Your task to perform on an android device: turn off location Image 0: 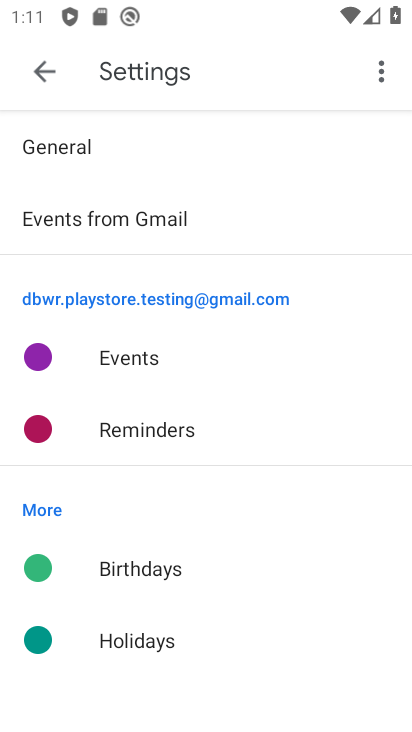
Step 0: press home button
Your task to perform on an android device: turn off location Image 1: 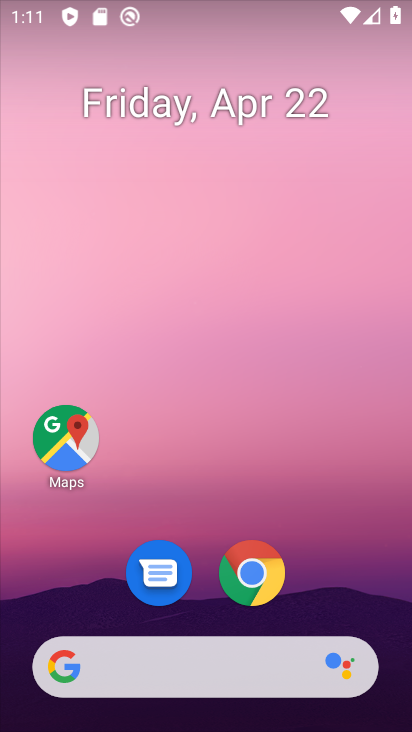
Step 1: drag from (241, 472) to (255, 31)
Your task to perform on an android device: turn off location Image 2: 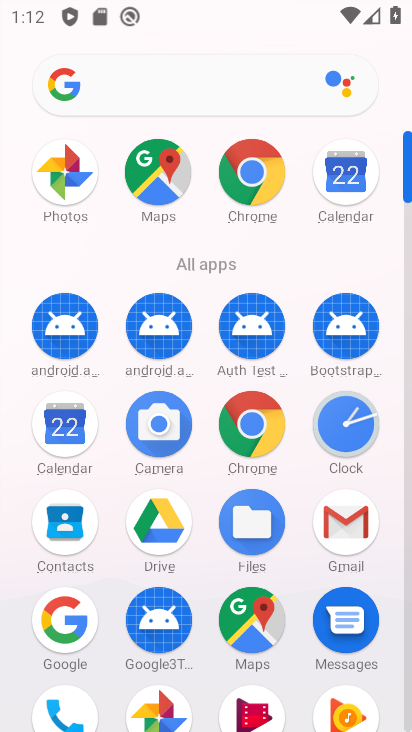
Step 2: drag from (244, 432) to (282, 163)
Your task to perform on an android device: turn off location Image 3: 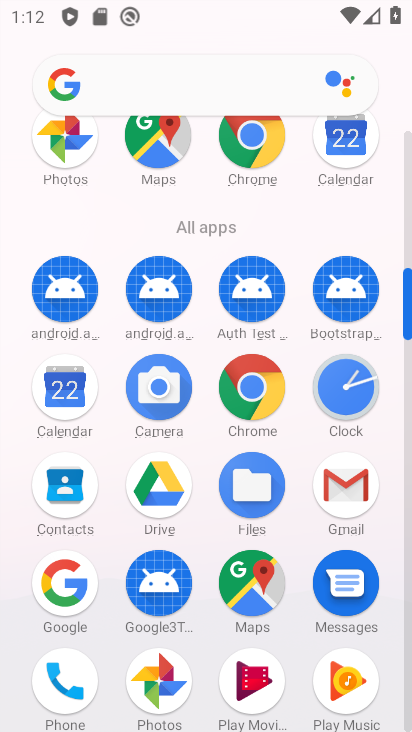
Step 3: drag from (206, 598) to (246, 122)
Your task to perform on an android device: turn off location Image 4: 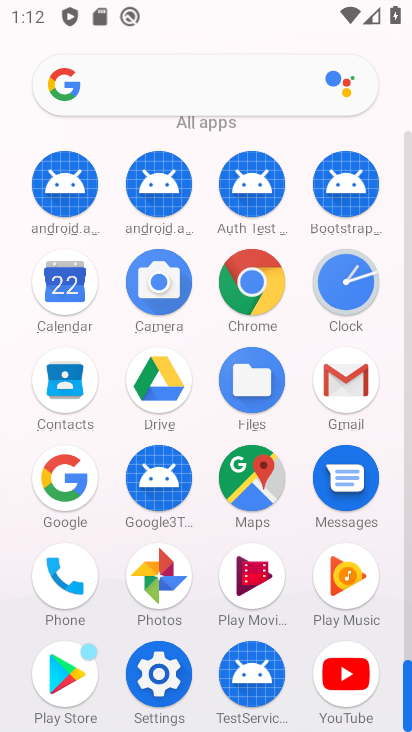
Step 4: drag from (160, 668) to (117, 226)
Your task to perform on an android device: turn off location Image 5: 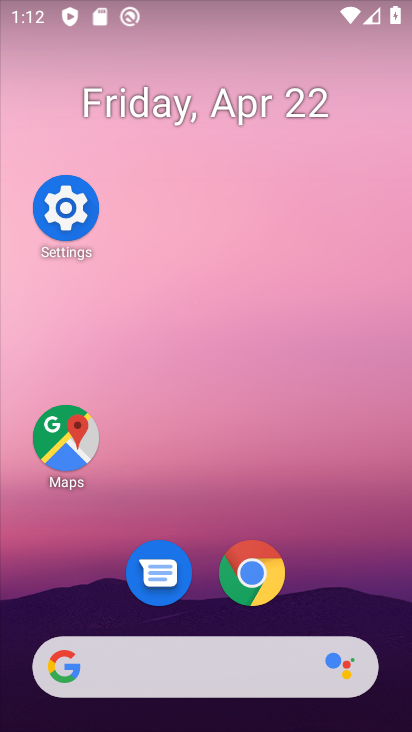
Step 5: click (67, 203)
Your task to perform on an android device: turn off location Image 6: 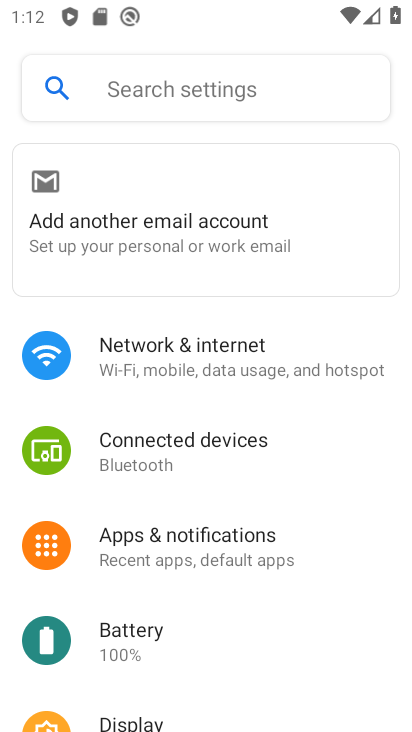
Step 6: drag from (235, 634) to (282, 39)
Your task to perform on an android device: turn off location Image 7: 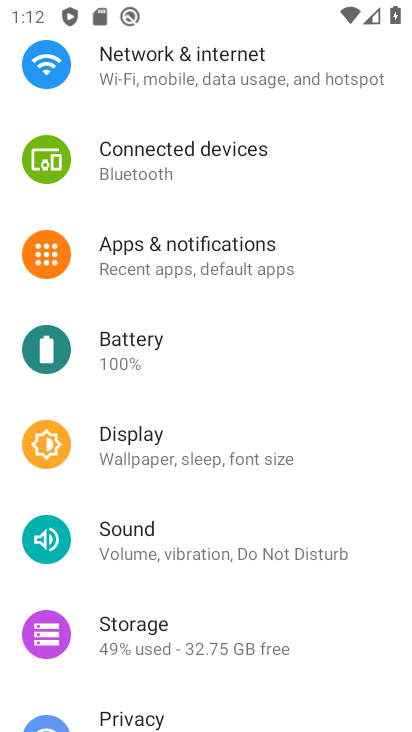
Step 7: drag from (194, 675) to (253, 128)
Your task to perform on an android device: turn off location Image 8: 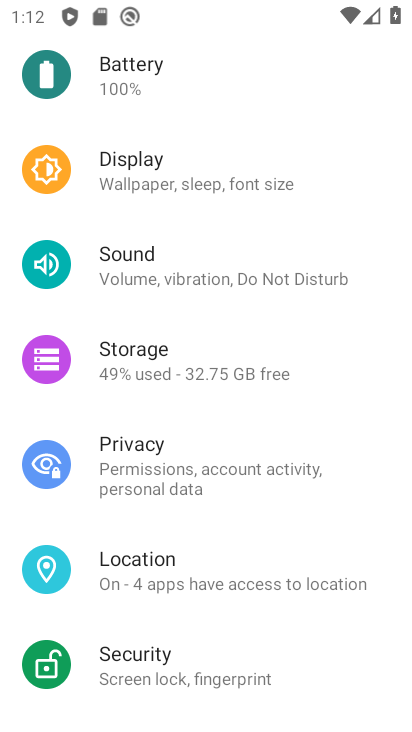
Step 8: click (216, 564)
Your task to perform on an android device: turn off location Image 9: 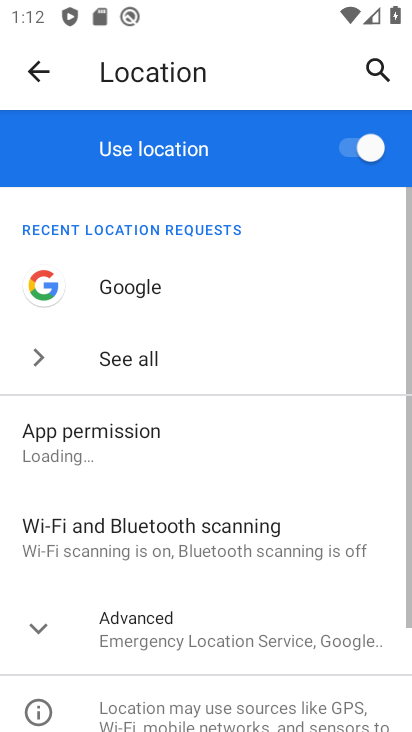
Step 9: click (356, 142)
Your task to perform on an android device: turn off location Image 10: 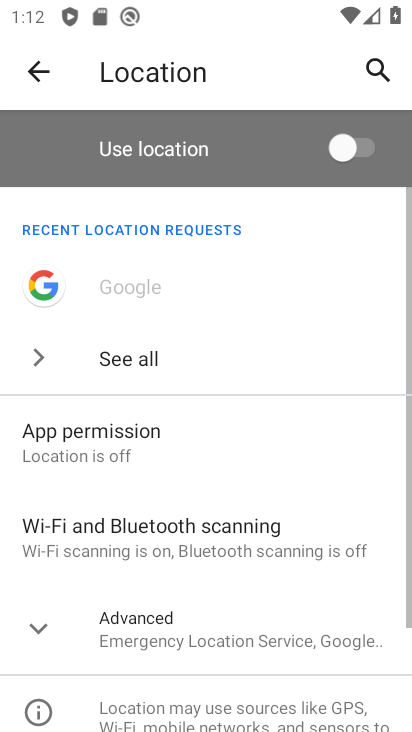
Step 10: task complete